Your task to perform on an android device: toggle javascript in the chrome app Image 0: 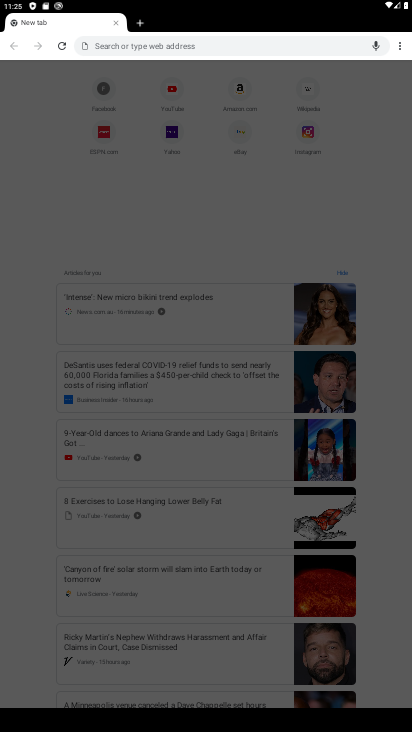
Step 0: press back button
Your task to perform on an android device: toggle javascript in the chrome app Image 1: 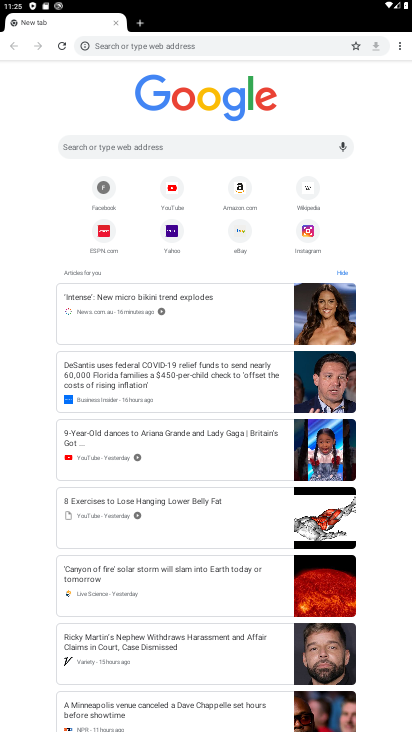
Step 1: drag from (410, 46) to (310, 213)
Your task to perform on an android device: toggle javascript in the chrome app Image 2: 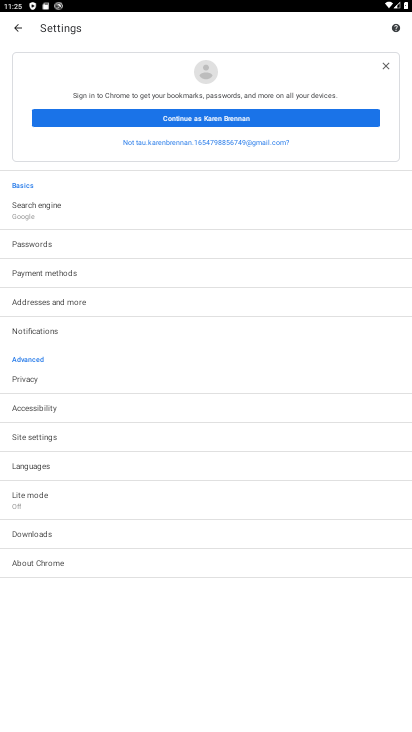
Step 2: click (51, 435)
Your task to perform on an android device: toggle javascript in the chrome app Image 3: 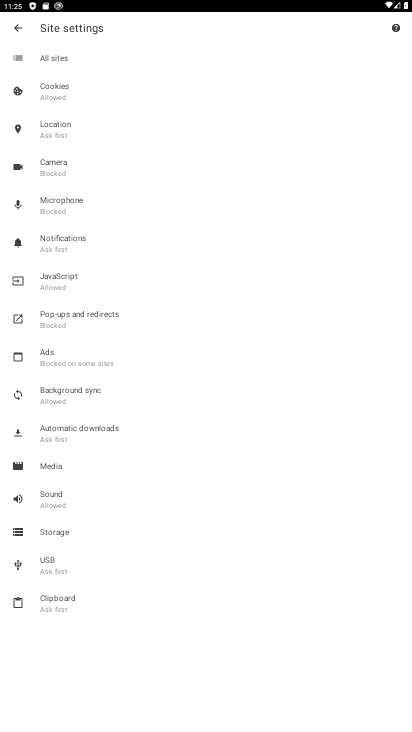
Step 3: click (45, 275)
Your task to perform on an android device: toggle javascript in the chrome app Image 4: 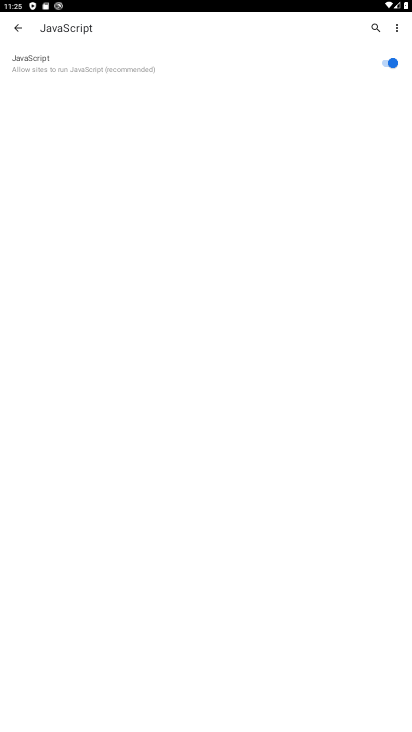
Step 4: click (389, 67)
Your task to perform on an android device: toggle javascript in the chrome app Image 5: 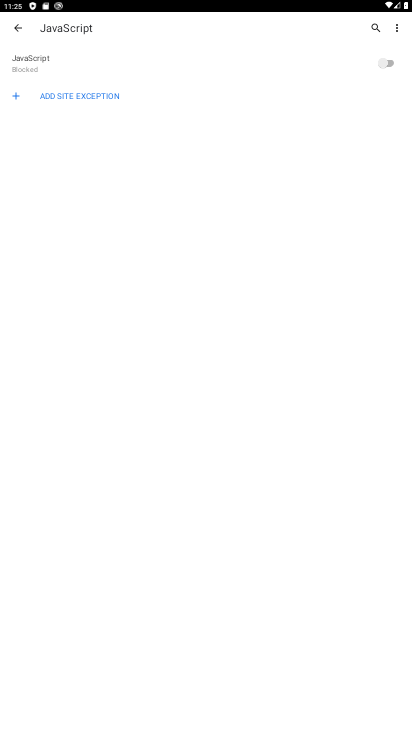
Step 5: task complete